Your task to perform on an android device: What is the news today? Image 0: 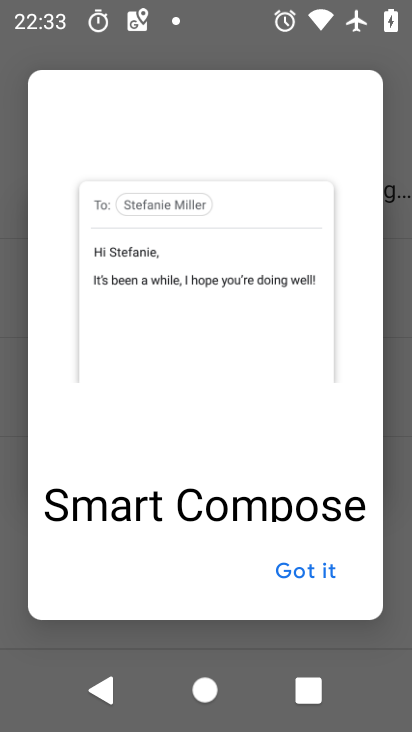
Step 0: press home button
Your task to perform on an android device: What is the news today? Image 1: 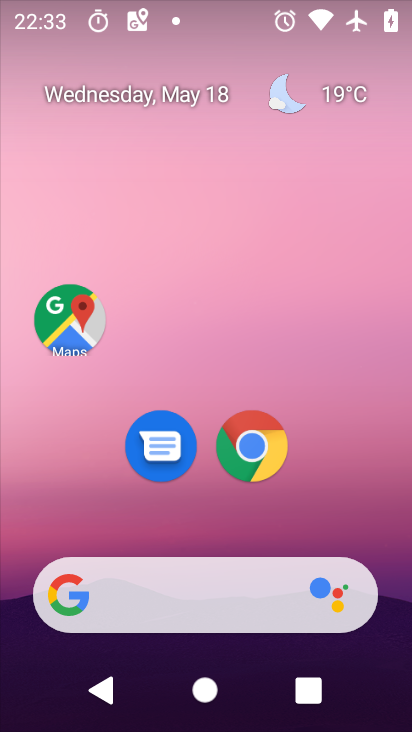
Step 1: press home button
Your task to perform on an android device: What is the news today? Image 2: 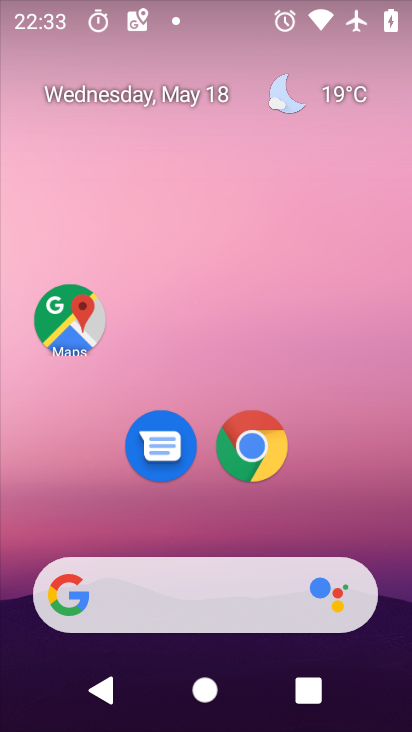
Step 2: click (73, 591)
Your task to perform on an android device: What is the news today? Image 3: 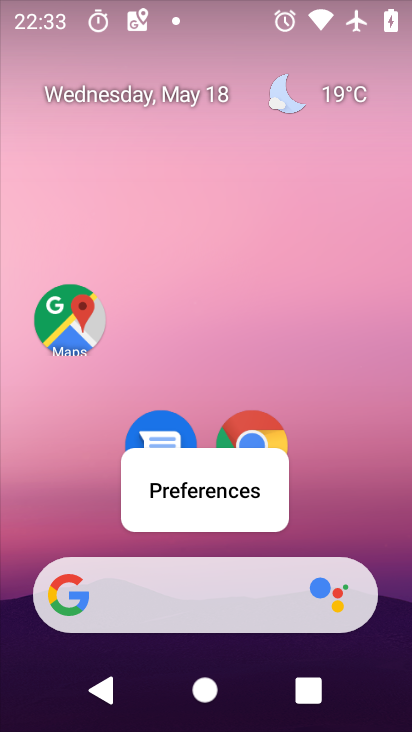
Step 3: click (76, 599)
Your task to perform on an android device: What is the news today? Image 4: 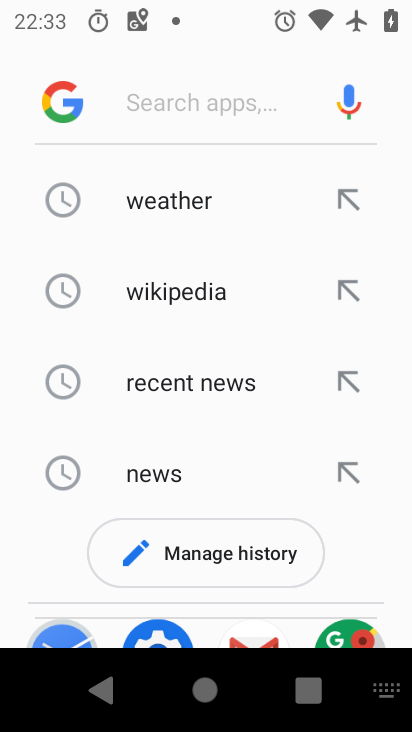
Step 4: click (146, 470)
Your task to perform on an android device: What is the news today? Image 5: 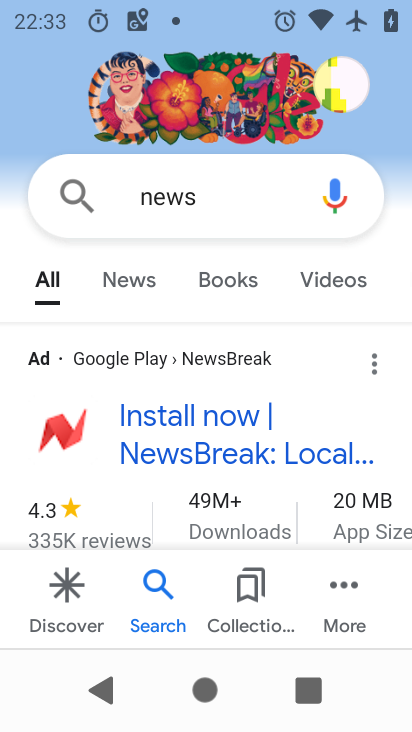
Step 5: click (130, 281)
Your task to perform on an android device: What is the news today? Image 6: 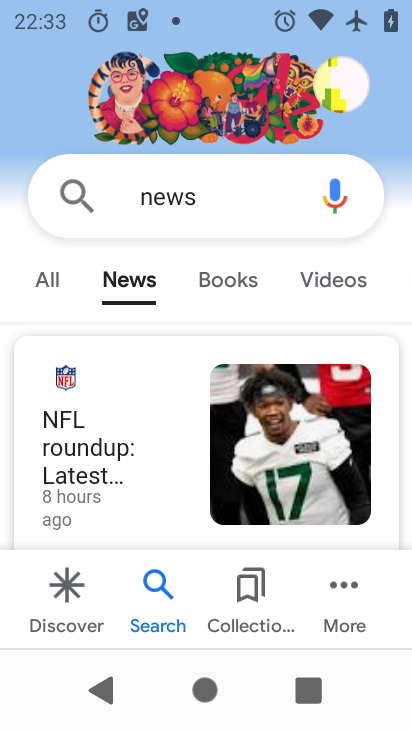
Step 6: task complete